Your task to perform on an android device: change alarm snooze length Image 0: 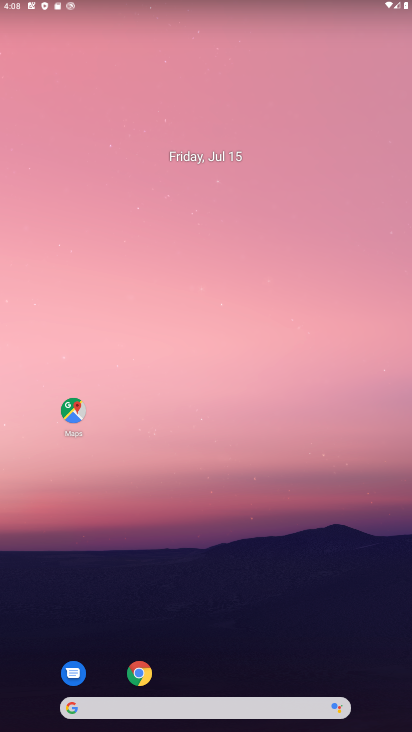
Step 0: drag from (188, 657) to (215, 176)
Your task to perform on an android device: change alarm snooze length Image 1: 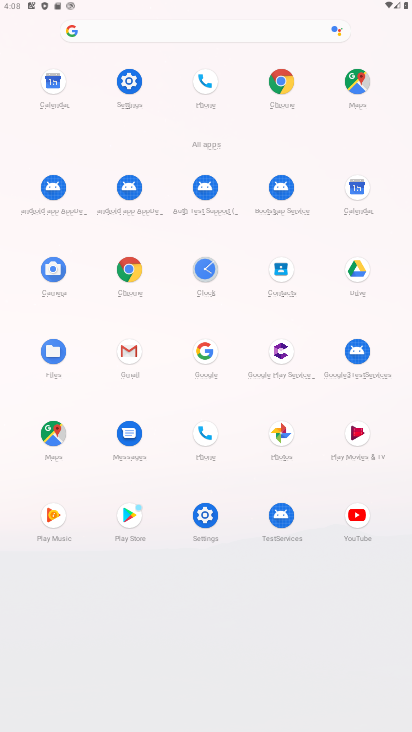
Step 1: click (366, 190)
Your task to perform on an android device: change alarm snooze length Image 2: 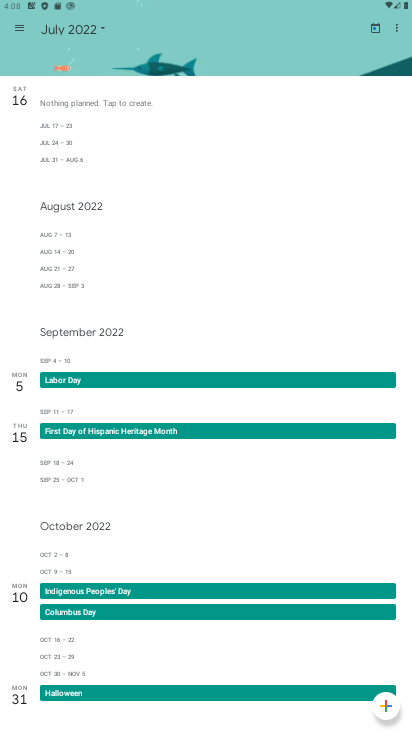
Step 2: press home button
Your task to perform on an android device: change alarm snooze length Image 3: 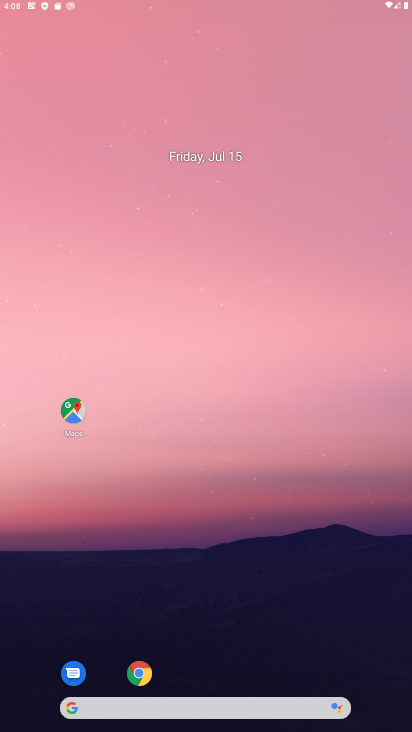
Step 3: drag from (192, 640) to (212, 256)
Your task to perform on an android device: change alarm snooze length Image 4: 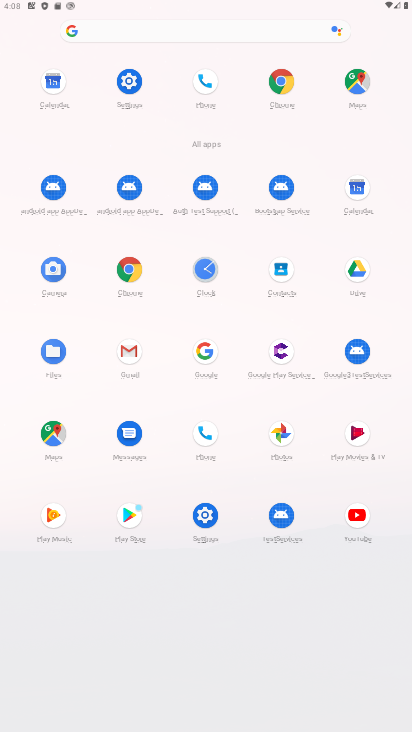
Step 4: click (195, 268)
Your task to perform on an android device: change alarm snooze length Image 5: 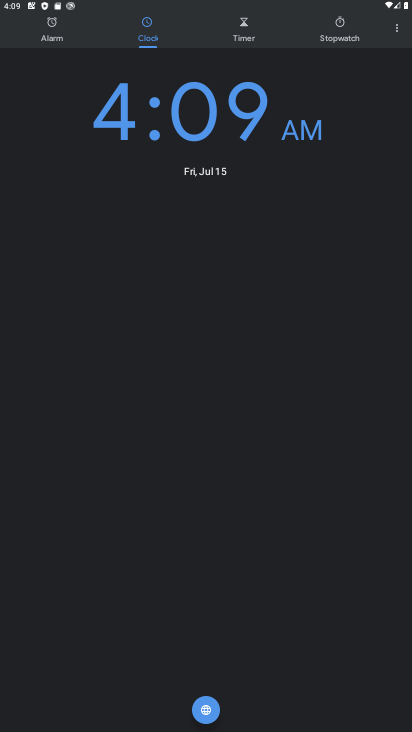
Step 5: click (395, 25)
Your task to perform on an android device: change alarm snooze length Image 6: 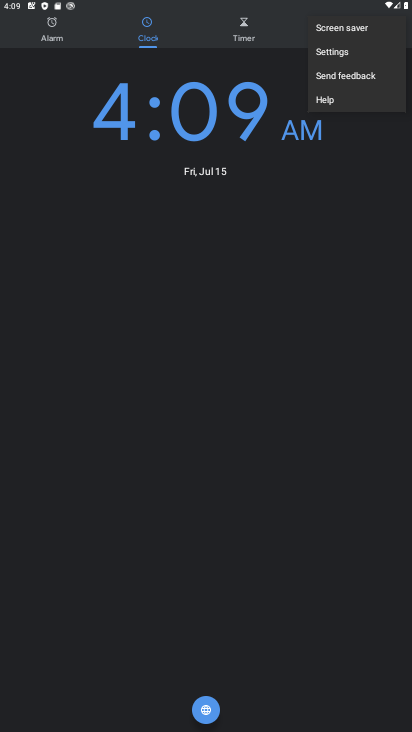
Step 6: click (322, 59)
Your task to perform on an android device: change alarm snooze length Image 7: 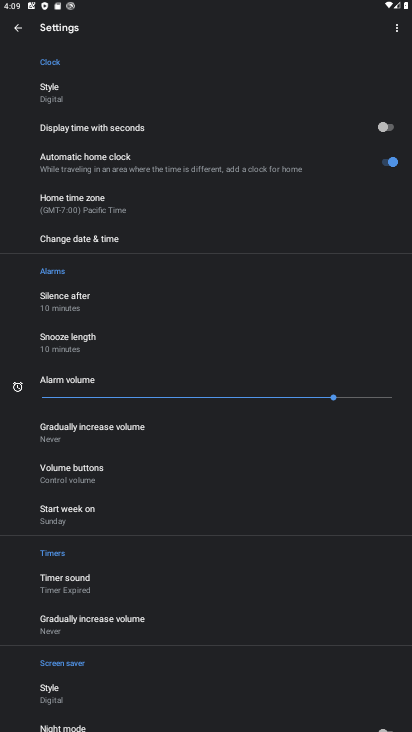
Step 7: click (111, 338)
Your task to perform on an android device: change alarm snooze length Image 8: 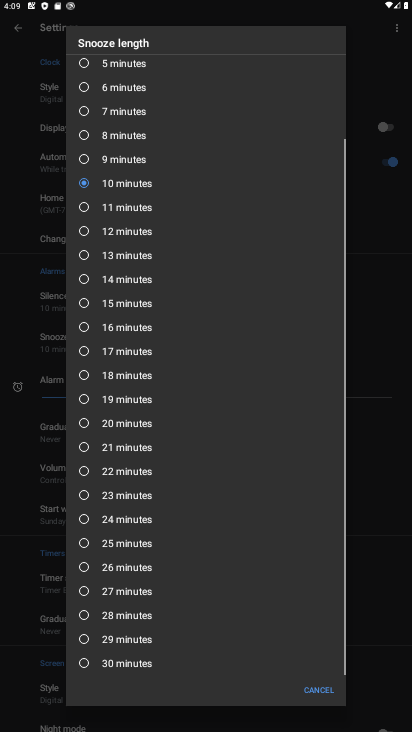
Step 8: click (134, 473)
Your task to perform on an android device: change alarm snooze length Image 9: 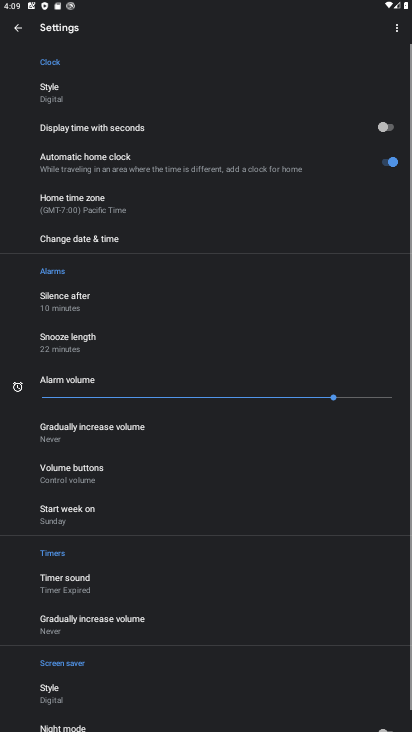
Step 9: task complete